Your task to perform on an android device: Show me popular games on the Play Store Image 0: 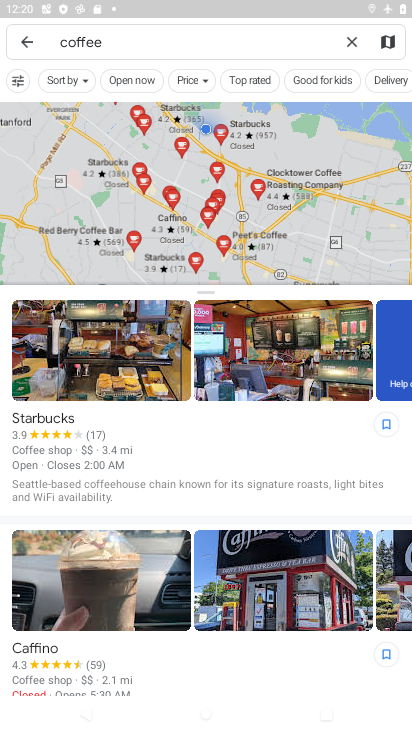
Step 0: press home button
Your task to perform on an android device: Show me popular games on the Play Store Image 1: 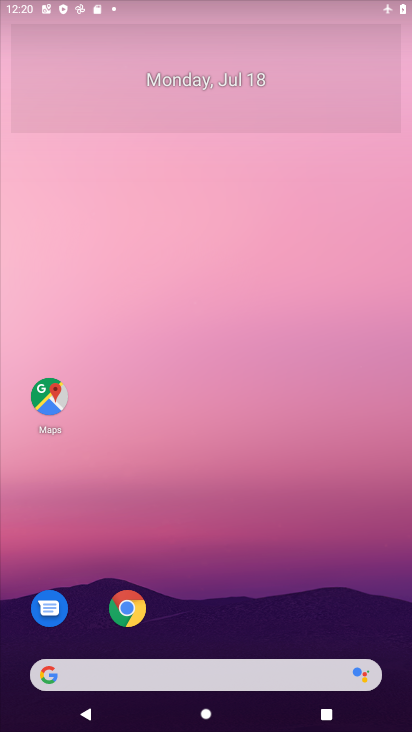
Step 1: drag from (316, 649) to (142, 11)
Your task to perform on an android device: Show me popular games on the Play Store Image 2: 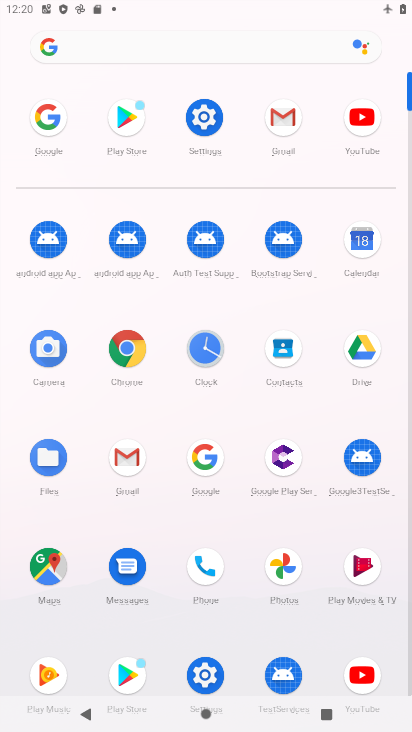
Step 2: click (129, 657)
Your task to perform on an android device: Show me popular games on the Play Store Image 3: 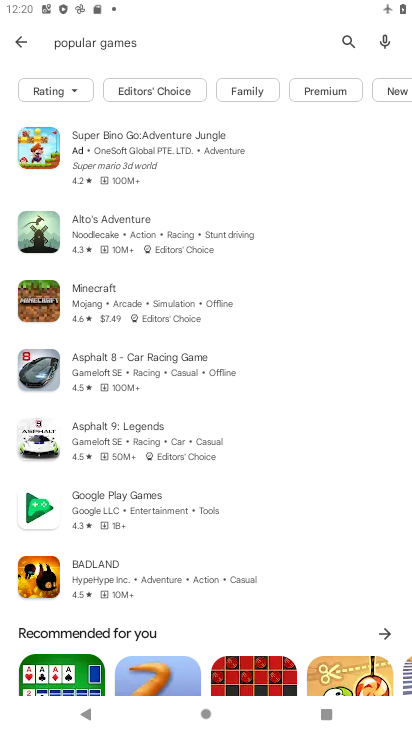
Step 3: task complete